Your task to perform on an android device: Open Google Chrome Image 0: 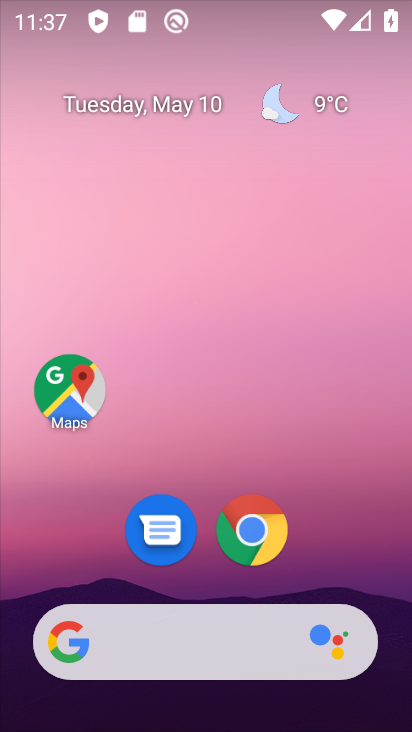
Step 0: click (274, 531)
Your task to perform on an android device: Open Google Chrome Image 1: 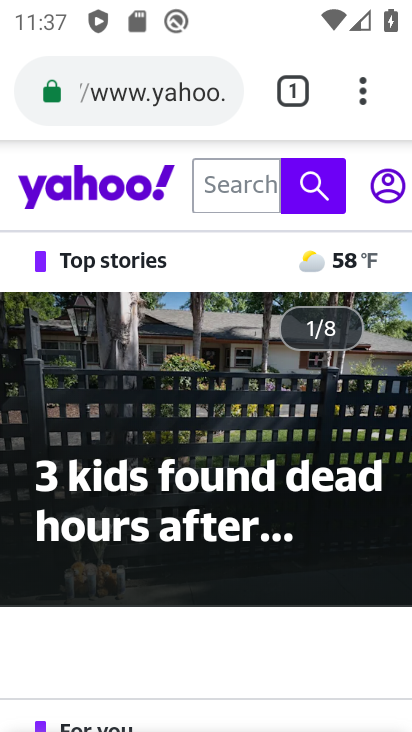
Step 1: task complete